Your task to perform on an android device: Do I have any events tomorrow? Image 0: 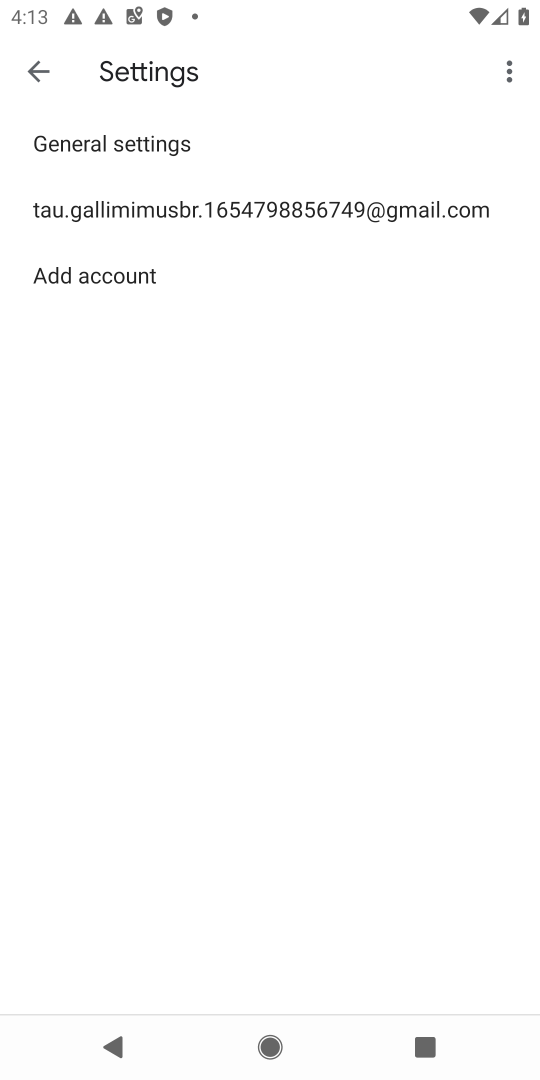
Step 0: press home button
Your task to perform on an android device: Do I have any events tomorrow? Image 1: 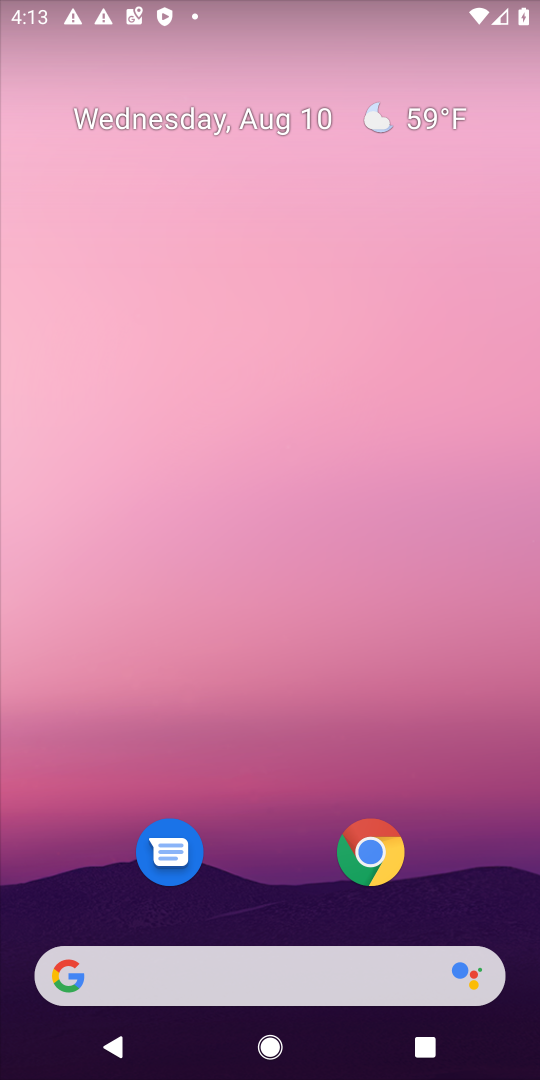
Step 1: click (443, 119)
Your task to perform on an android device: Do I have any events tomorrow? Image 2: 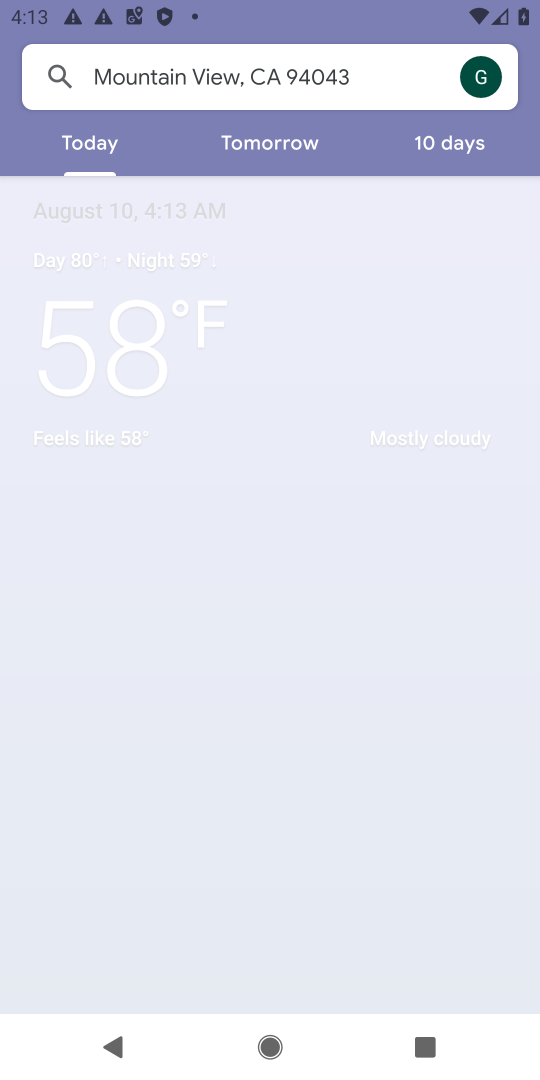
Step 2: press home button
Your task to perform on an android device: Do I have any events tomorrow? Image 3: 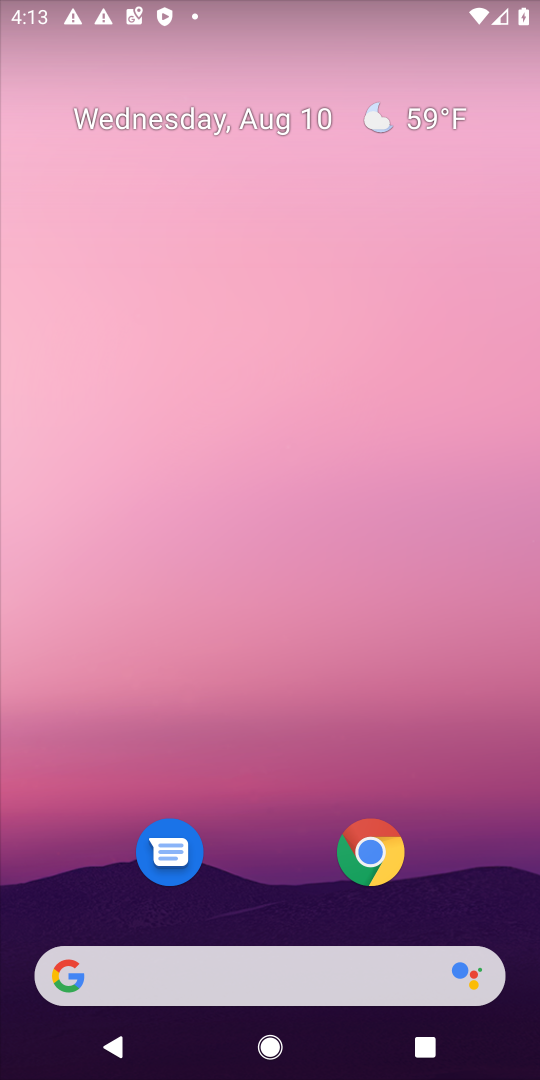
Step 3: click (185, 124)
Your task to perform on an android device: Do I have any events tomorrow? Image 4: 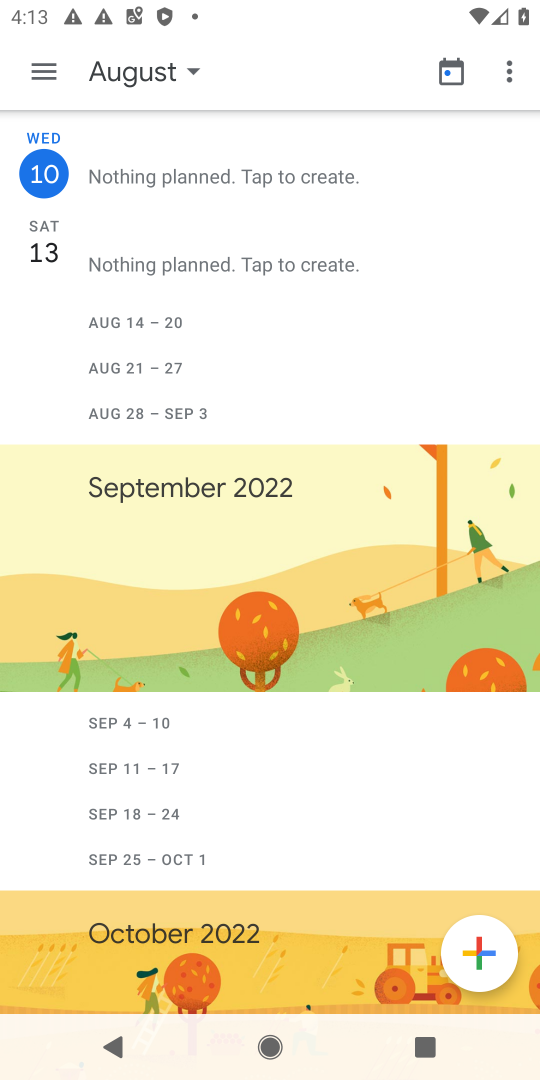
Step 4: click (185, 124)
Your task to perform on an android device: Do I have any events tomorrow? Image 5: 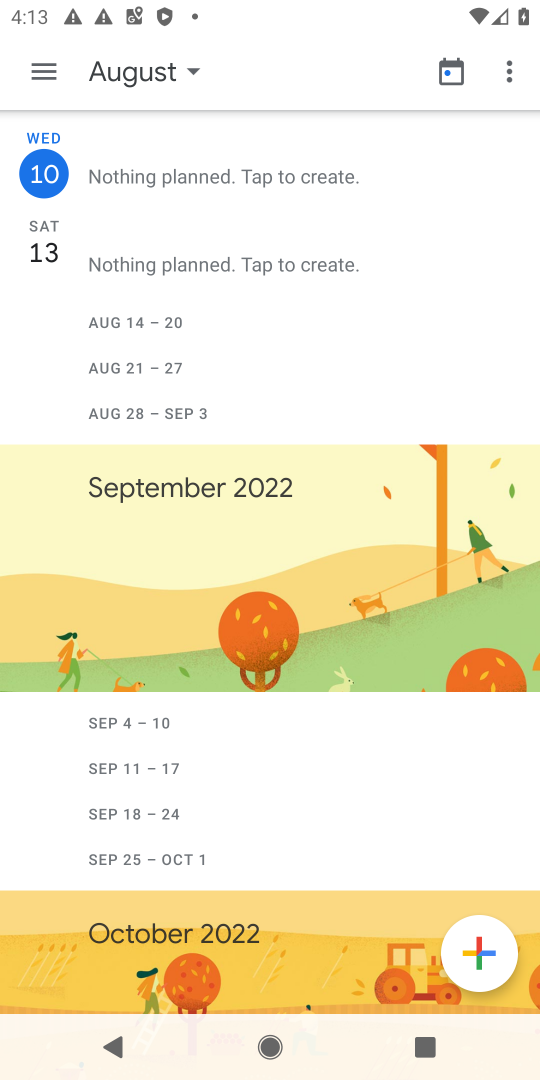
Step 5: click (157, 78)
Your task to perform on an android device: Do I have any events tomorrow? Image 6: 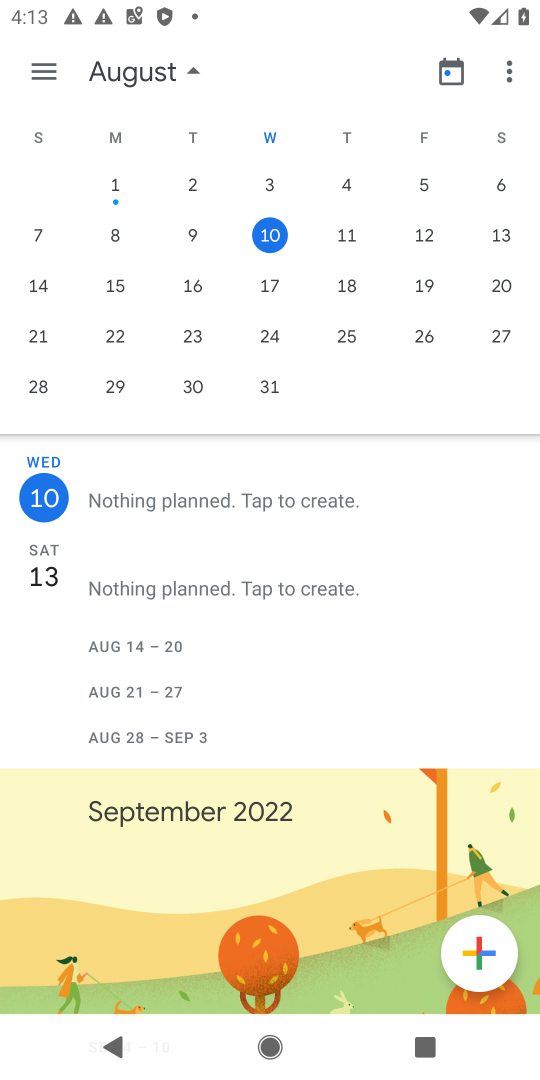
Step 6: click (352, 225)
Your task to perform on an android device: Do I have any events tomorrow? Image 7: 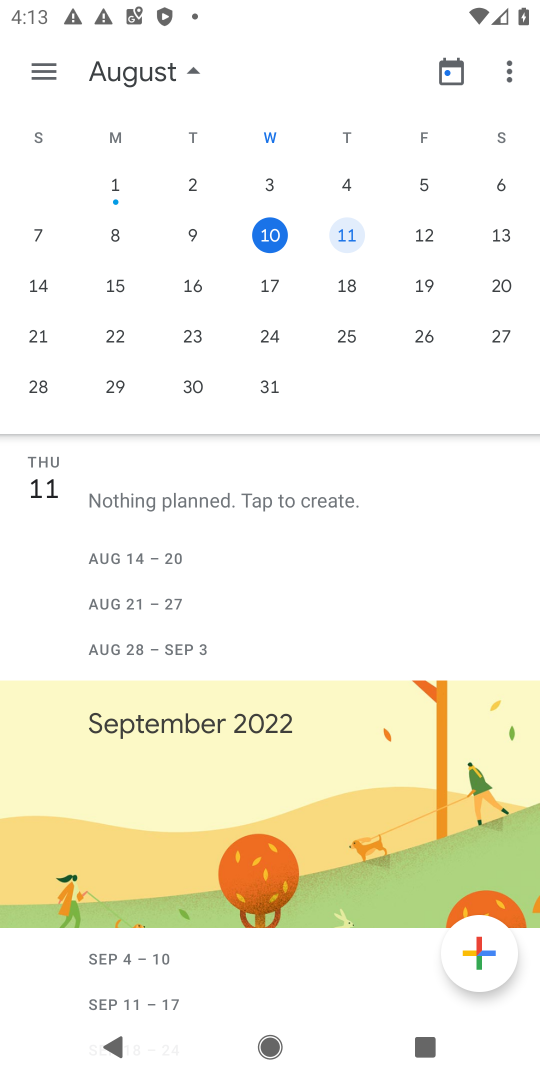
Step 7: task complete